Your task to perform on an android device: refresh tabs in the chrome app Image 0: 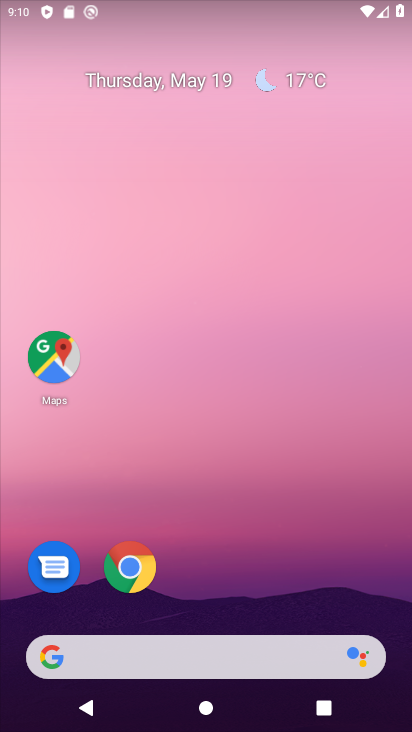
Step 0: click (110, 563)
Your task to perform on an android device: refresh tabs in the chrome app Image 1: 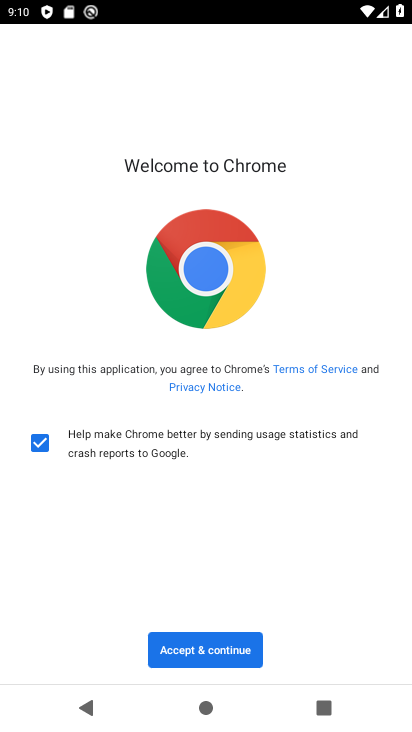
Step 1: click (211, 652)
Your task to perform on an android device: refresh tabs in the chrome app Image 2: 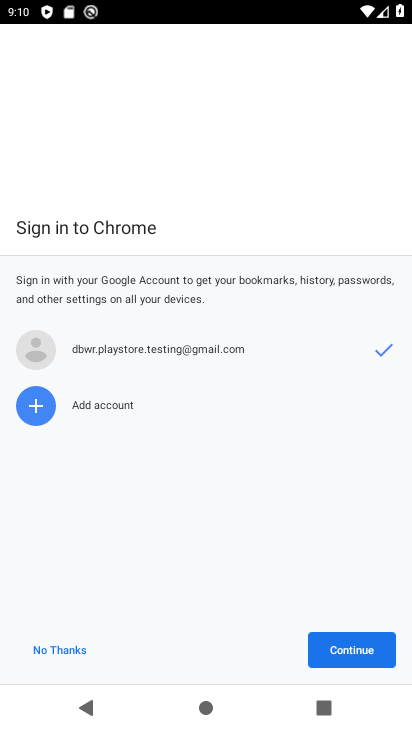
Step 2: click (331, 651)
Your task to perform on an android device: refresh tabs in the chrome app Image 3: 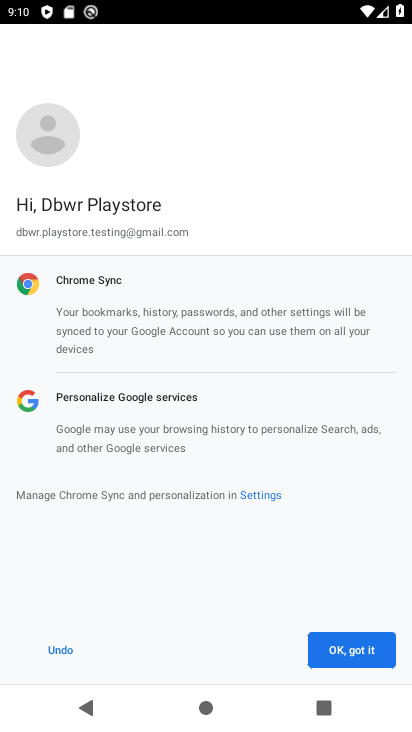
Step 3: click (331, 651)
Your task to perform on an android device: refresh tabs in the chrome app Image 4: 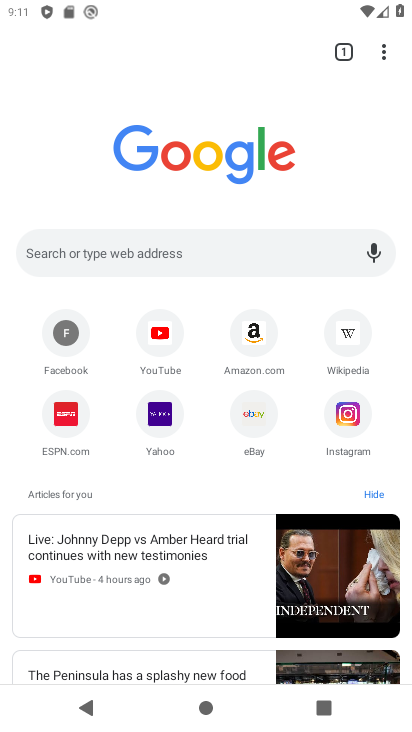
Step 4: click (383, 56)
Your task to perform on an android device: refresh tabs in the chrome app Image 5: 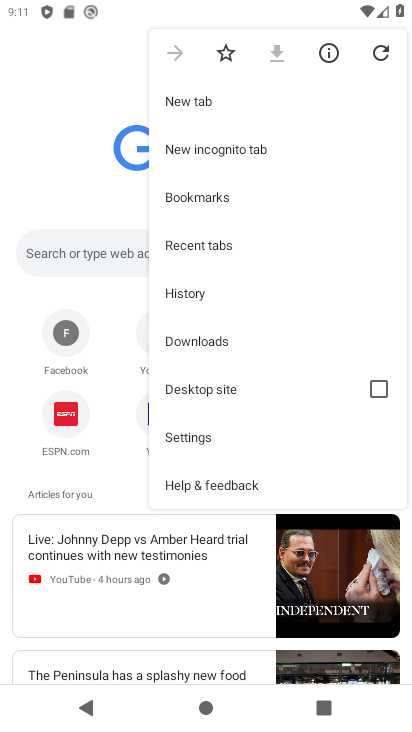
Step 5: click (377, 56)
Your task to perform on an android device: refresh tabs in the chrome app Image 6: 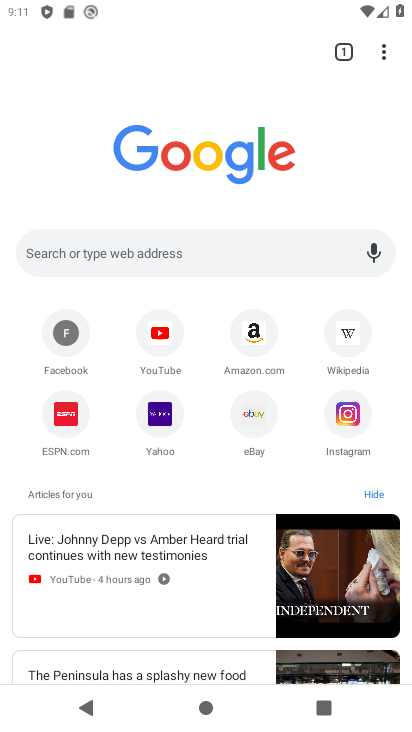
Step 6: task complete